Your task to perform on an android device: open app "Lyft - Rideshare, Bikes, Scooters & Transit" (install if not already installed) and enter user name: "deliberating@gmail.com" and password: "preyed" Image 0: 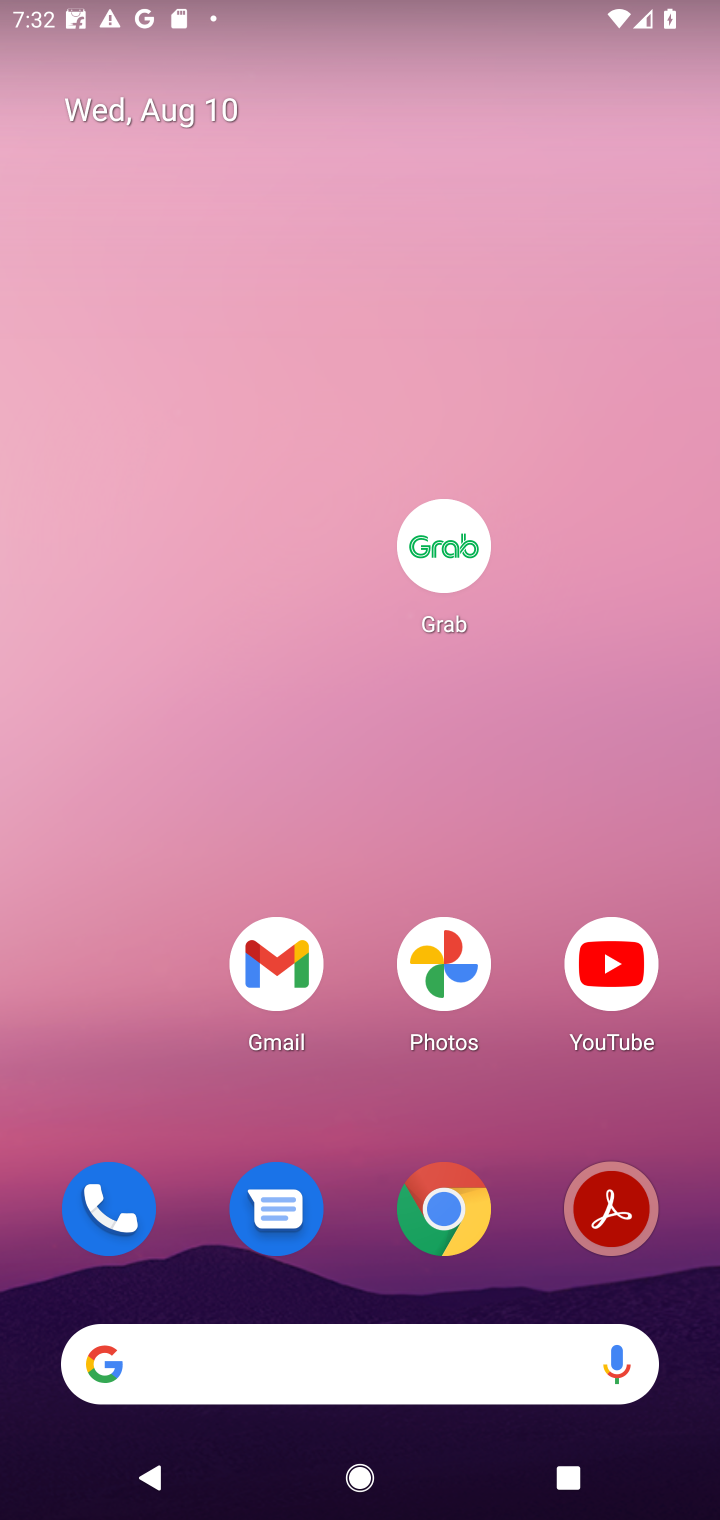
Step 0: drag from (368, 1291) to (365, 15)
Your task to perform on an android device: open app "Lyft - Rideshare, Bikes, Scooters & Transit" (install if not already installed) and enter user name: "deliberating@gmail.com" and password: "preyed" Image 1: 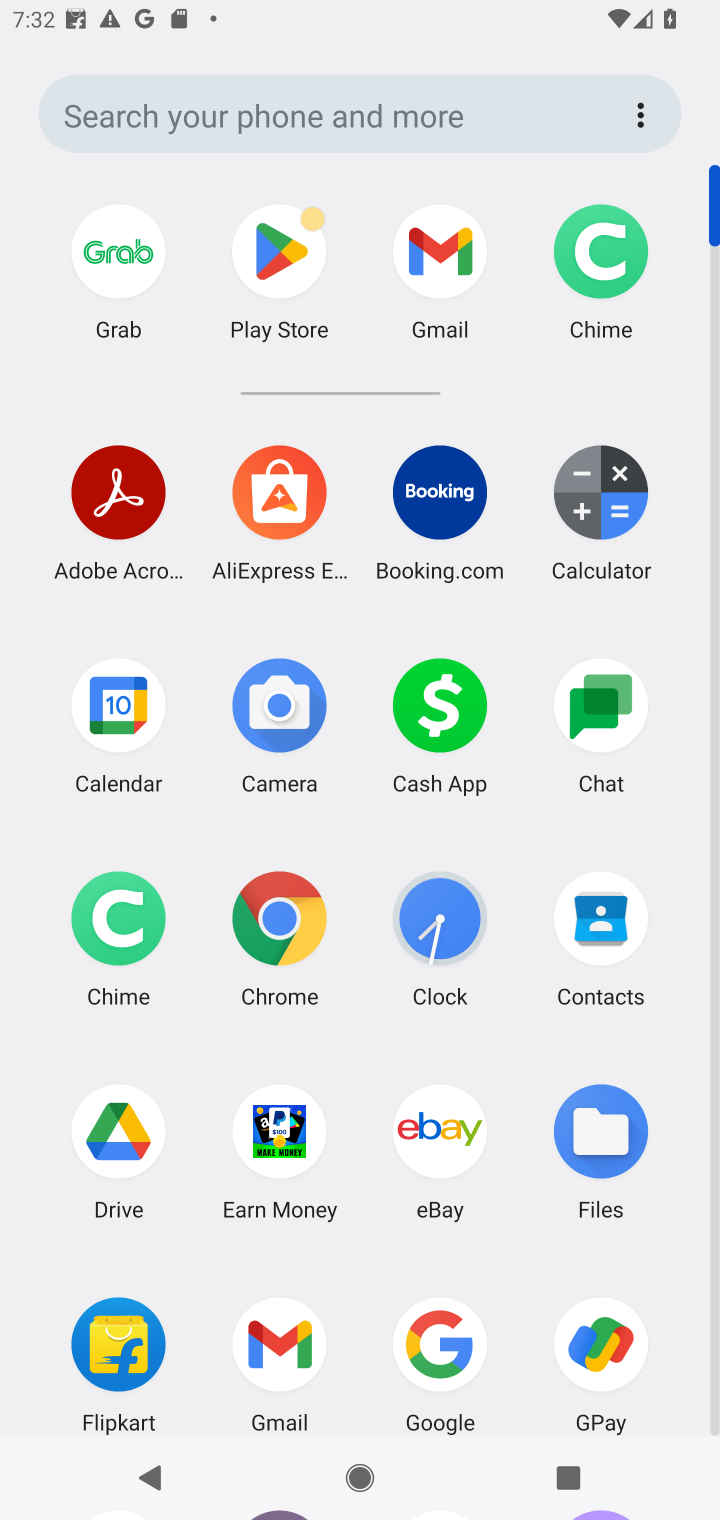
Step 1: click (278, 227)
Your task to perform on an android device: open app "Lyft - Rideshare, Bikes, Scooters & Transit" (install if not already installed) and enter user name: "deliberating@gmail.com" and password: "preyed" Image 2: 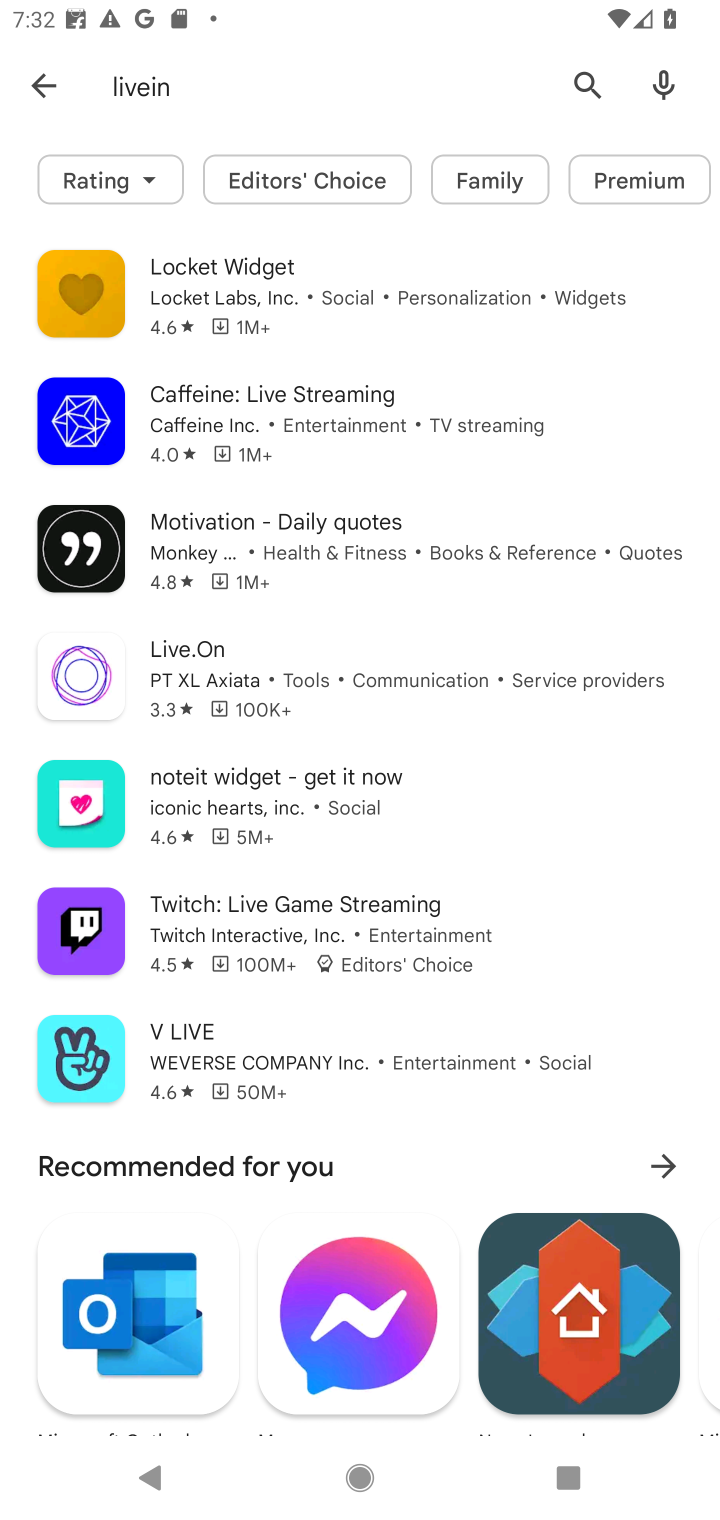
Step 2: click (587, 96)
Your task to perform on an android device: open app "Lyft - Rideshare, Bikes, Scooters & Transit" (install if not already installed) and enter user name: "deliberating@gmail.com" and password: "preyed" Image 3: 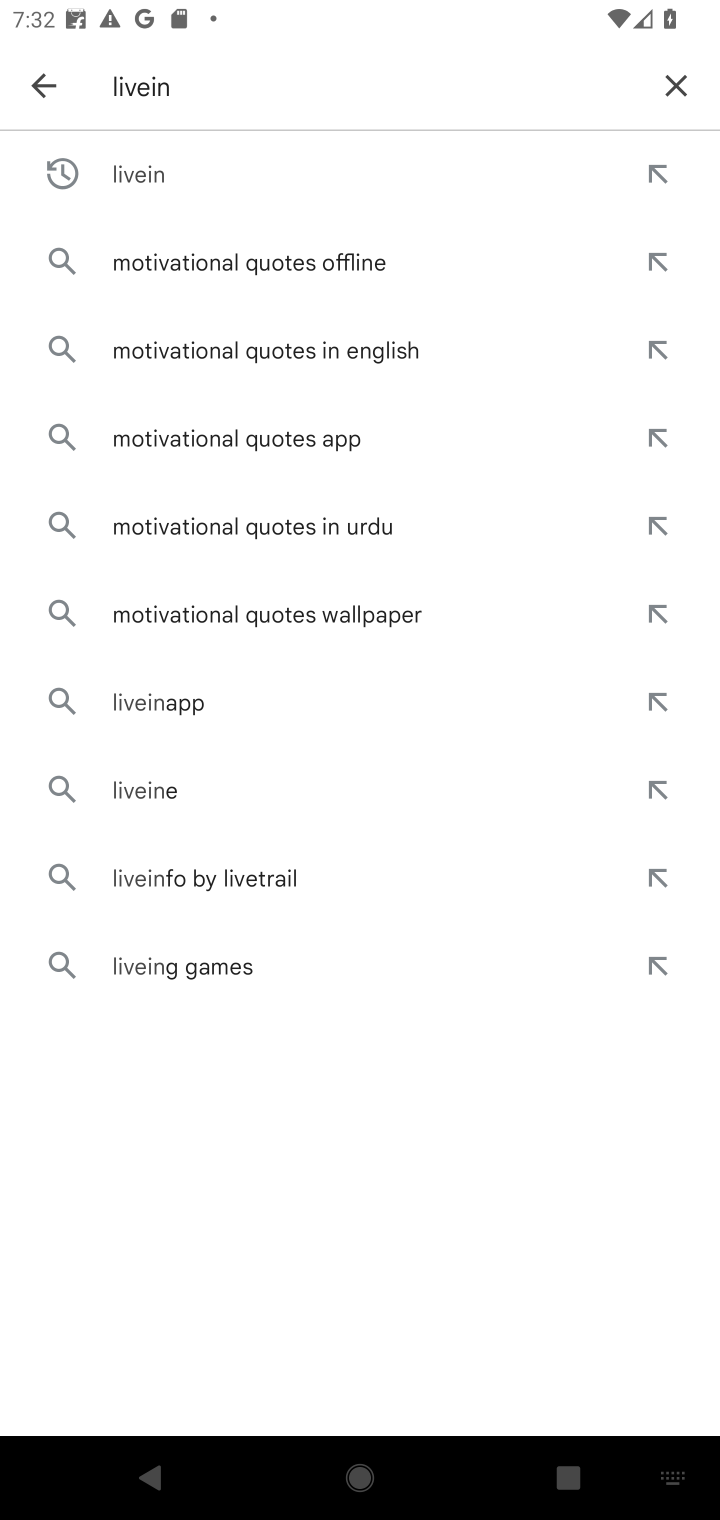
Step 3: click (676, 95)
Your task to perform on an android device: open app "Lyft - Rideshare, Bikes, Scooters & Transit" (install if not already installed) and enter user name: "deliberating@gmail.com" and password: "preyed" Image 4: 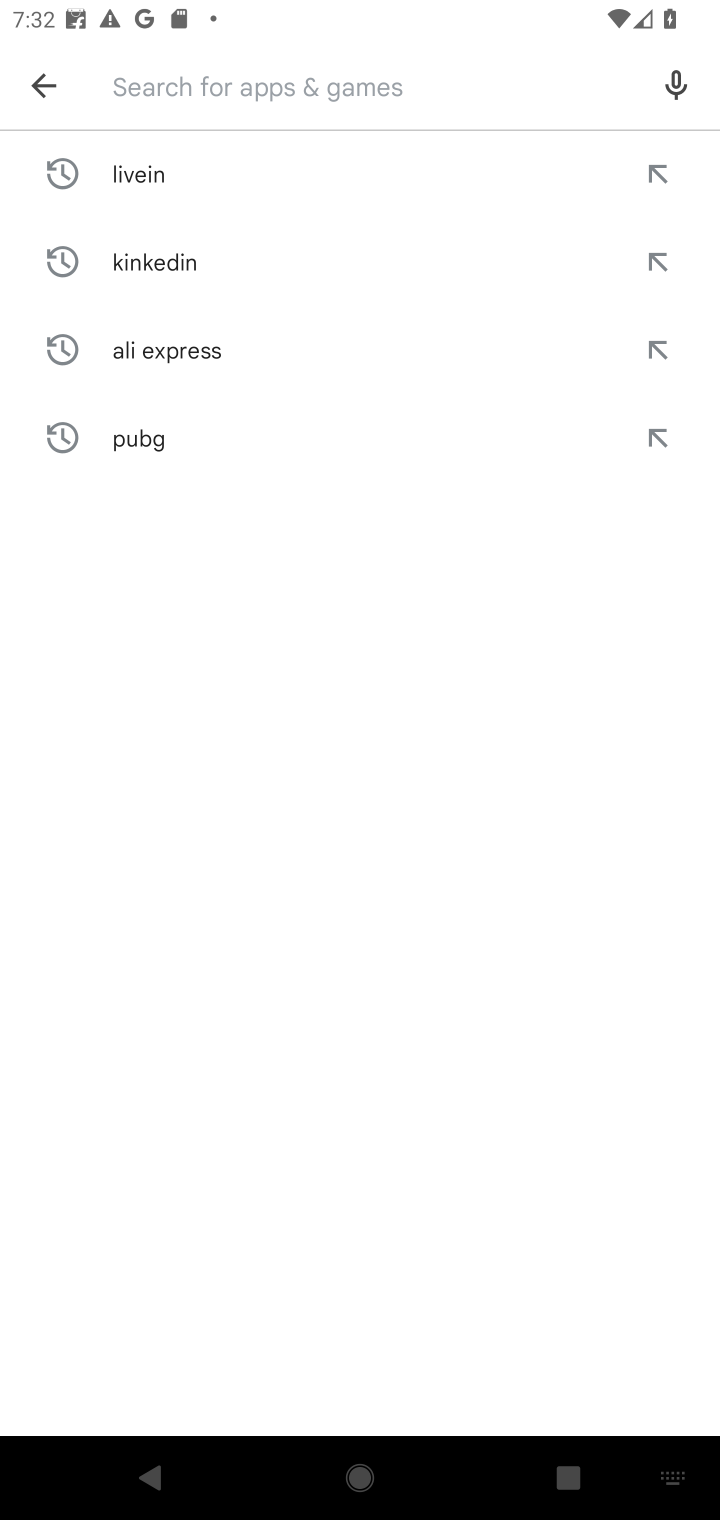
Step 4: type "lyst"
Your task to perform on an android device: open app "Lyft - Rideshare, Bikes, Scooters & Transit" (install if not already installed) and enter user name: "deliberating@gmail.com" and password: "preyed" Image 5: 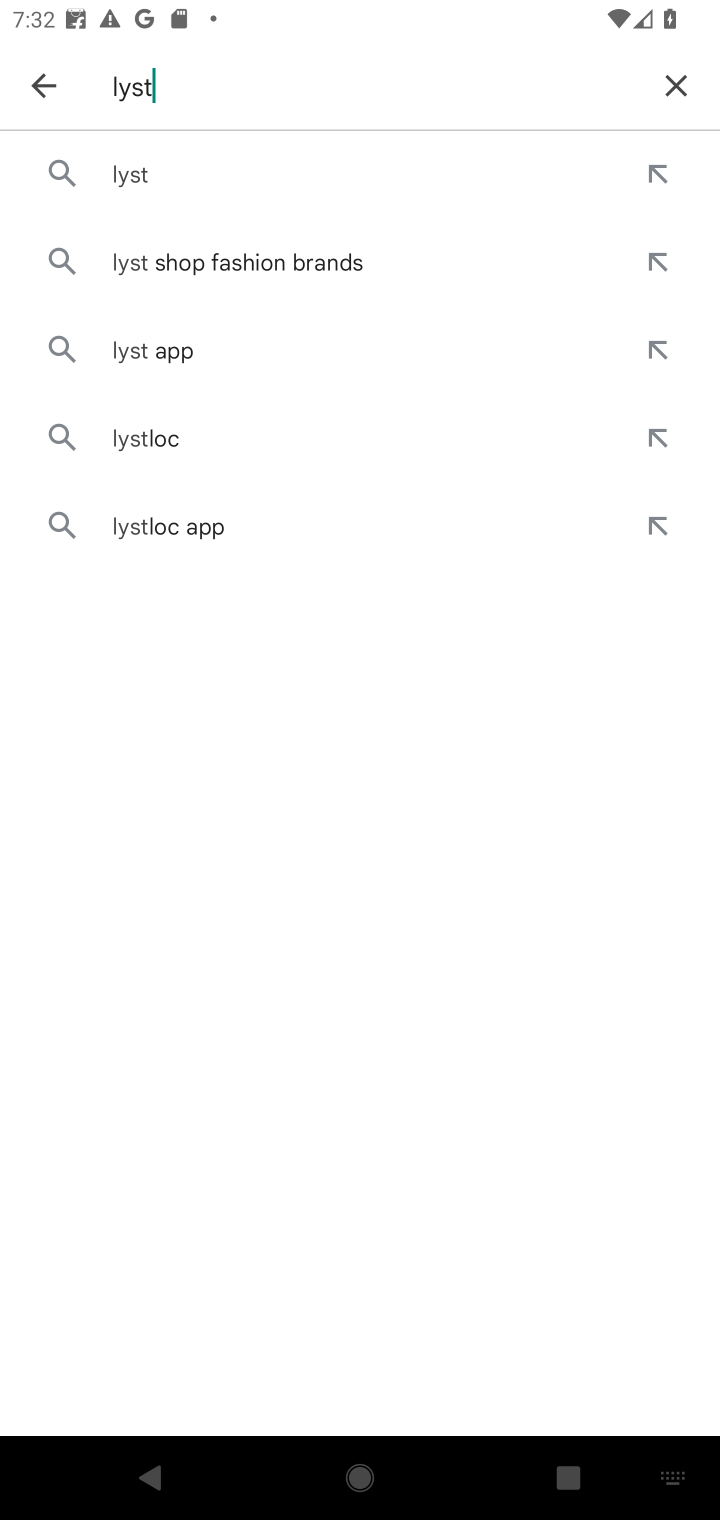
Step 5: click (310, 152)
Your task to perform on an android device: open app "Lyft - Rideshare, Bikes, Scooters & Transit" (install if not already installed) and enter user name: "deliberating@gmail.com" and password: "preyed" Image 6: 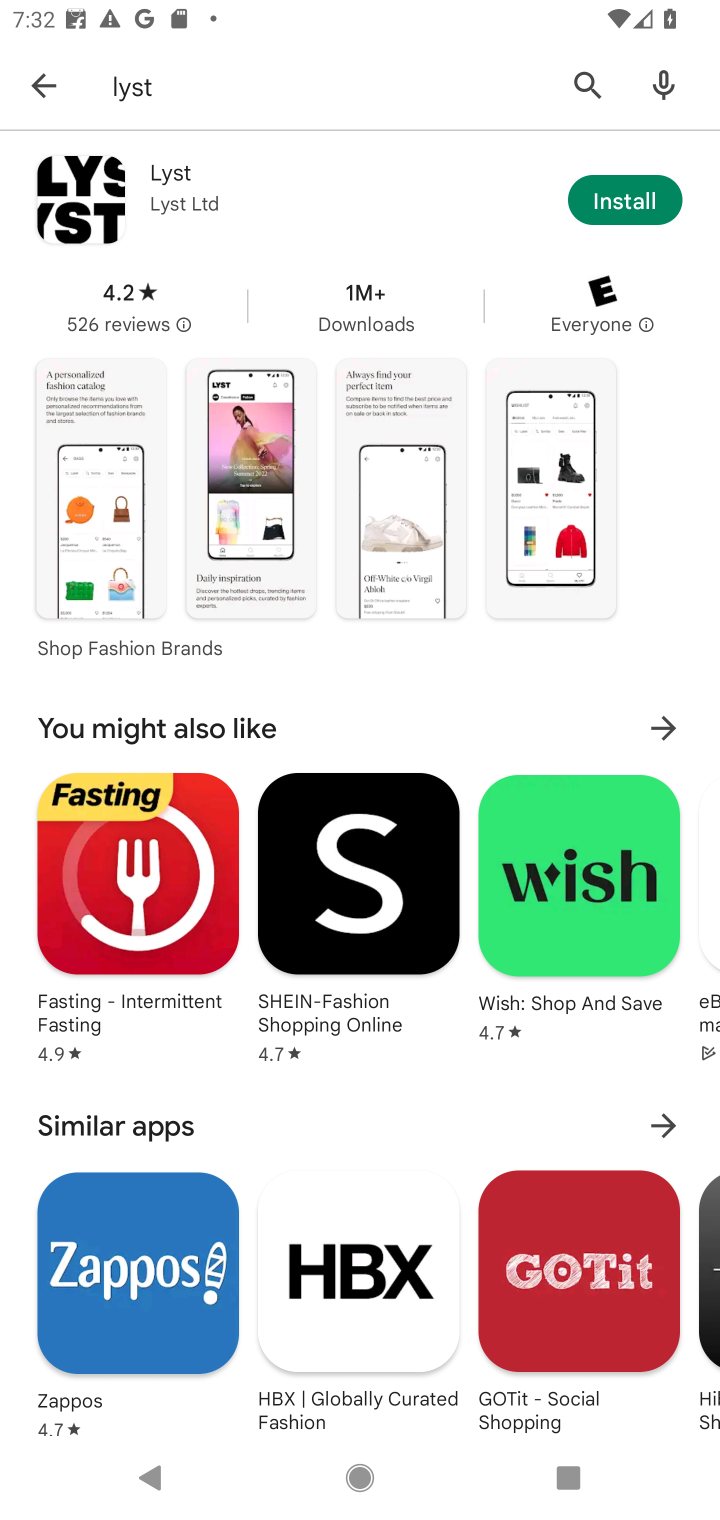
Step 6: click (640, 203)
Your task to perform on an android device: open app "Lyft - Rideshare, Bikes, Scooters & Transit" (install if not already installed) and enter user name: "deliberating@gmail.com" and password: "preyed" Image 7: 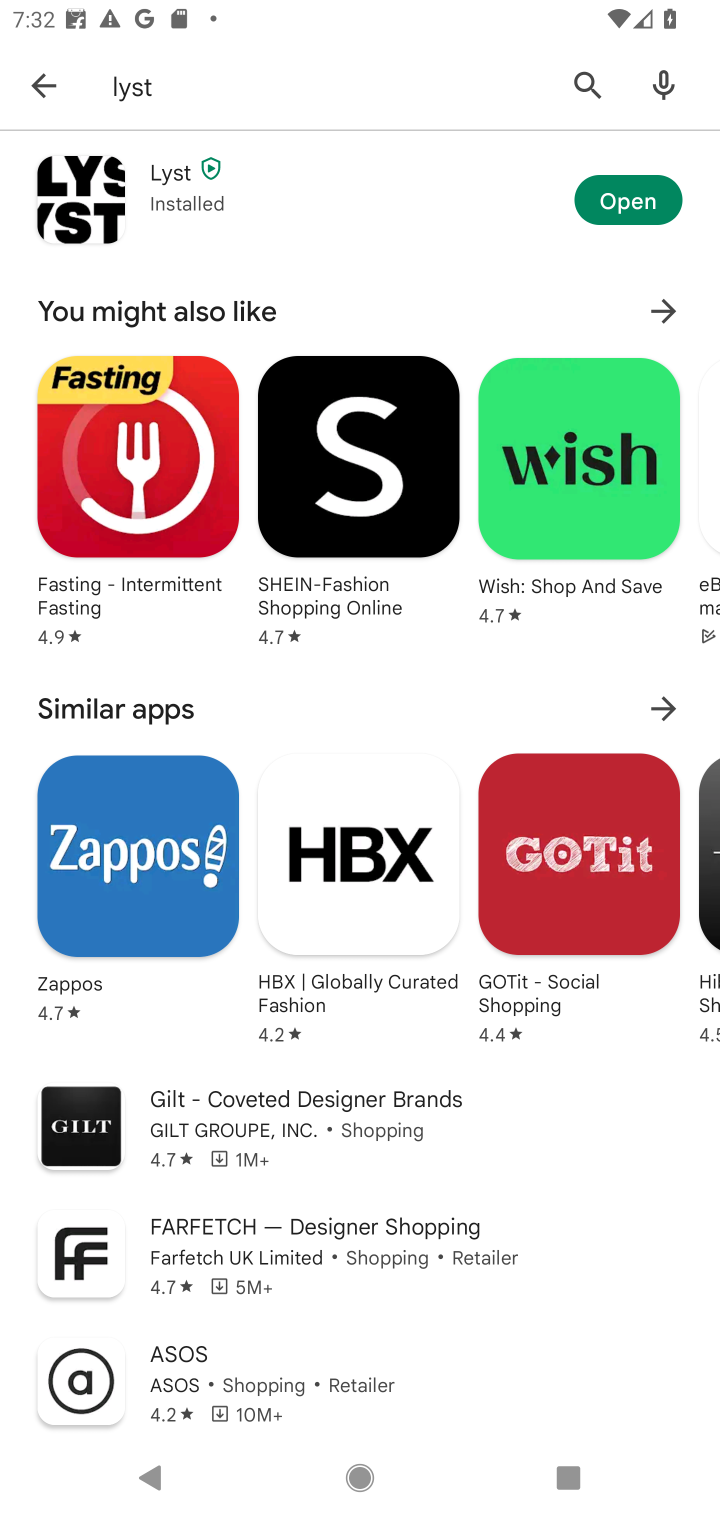
Step 7: click (654, 167)
Your task to perform on an android device: open app "Lyft - Rideshare, Bikes, Scooters & Transit" (install if not already installed) and enter user name: "deliberating@gmail.com" and password: "preyed" Image 8: 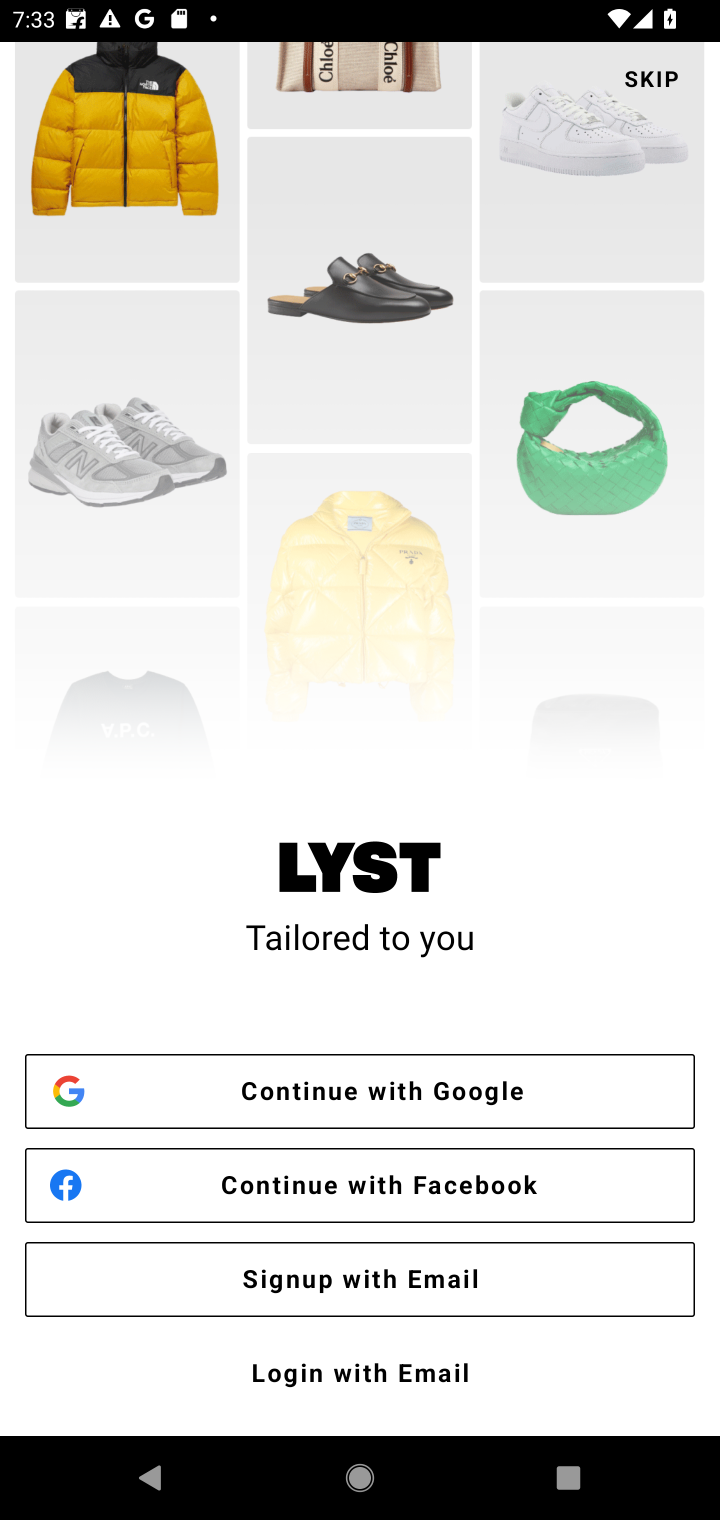
Step 8: click (363, 1367)
Your task to perform on an android device: open app "Lyft - Rideshare, Bikes, Scooters & Transit" (install if not already installed) and enter user name: "deliberating@gmail.com" and password: "preyed" Image 9: 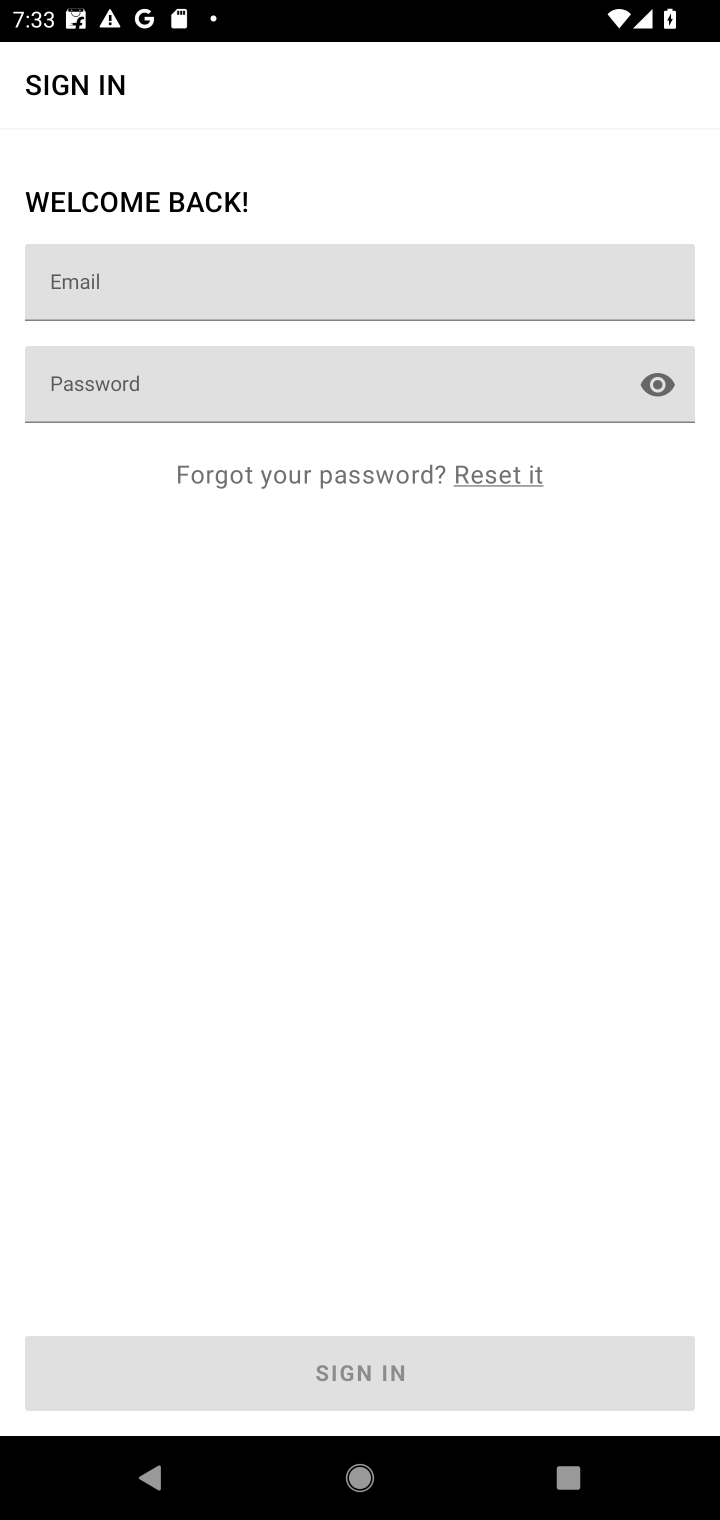
Step 9: click (355, 287)
Your task to perform on an android device: open app "Lyft - Rideshare, Bikes, Scooters & Transit" (install if not already installed) and enter user name: "deliberating@gmail.com" and password: "preyed" Image 10: 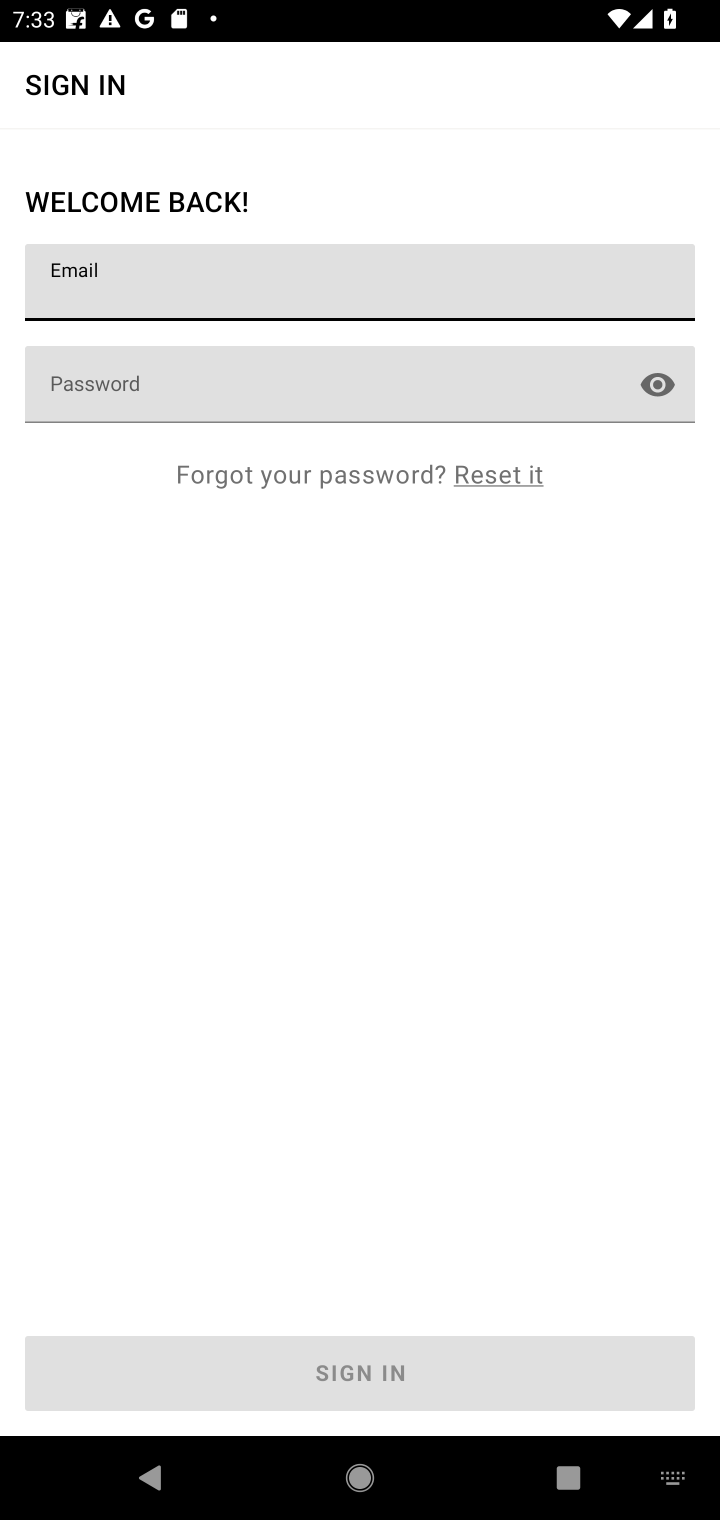
Step 10: type "deliberating@gmail.com"
Your task to perform on an android device: open app "Lyft - Rideshare, Bikes, Scooters & Transit" (install if not already installed) and enter user name: "deliberating@gmail.com" and password: "preyed" Image 11: 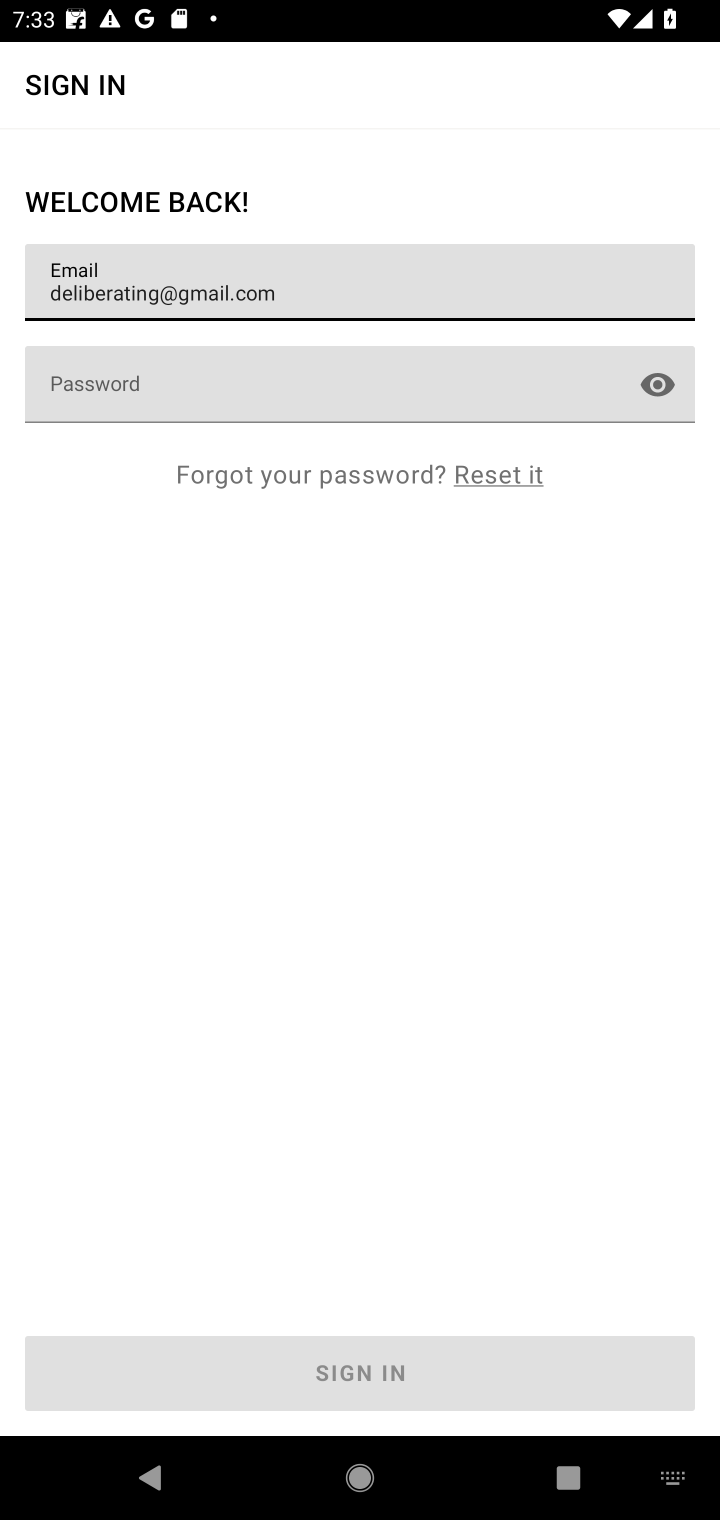
Step 11: click (261, 383)
Your task to perform on an android device: open app "Lyft - Rideshare, Bikes, Scooters & Transit" (install if not already installed) and enter user name: "deliberating@gmail.com" and password: "preyed" Image 12: 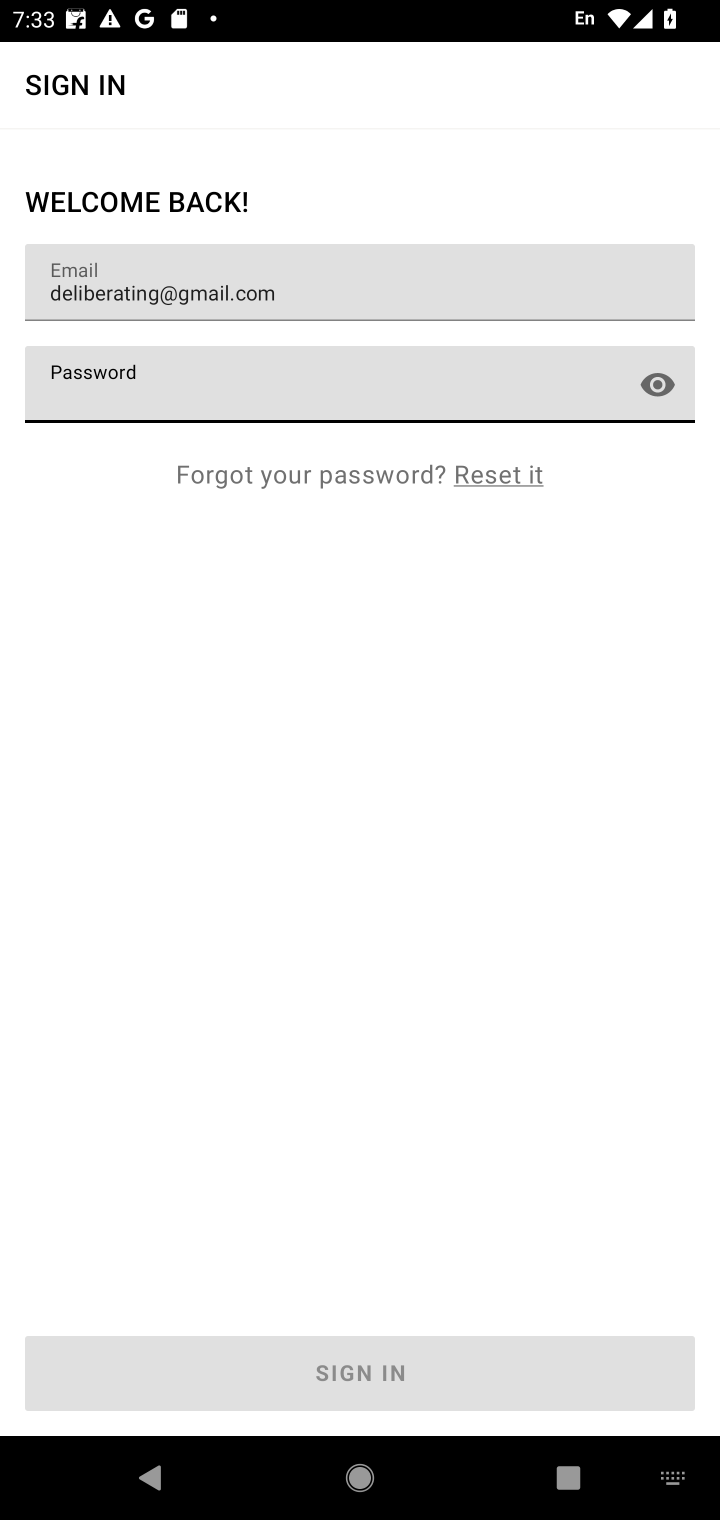
Step 12: type "preyed"
Your task to perform on an android device: open app "Lyft - Rideshare, Bikes, Scooters & Transit" (install if not already installed) and enter user name: "deliberating@gmail.com" and password: "preyed" Image 13: 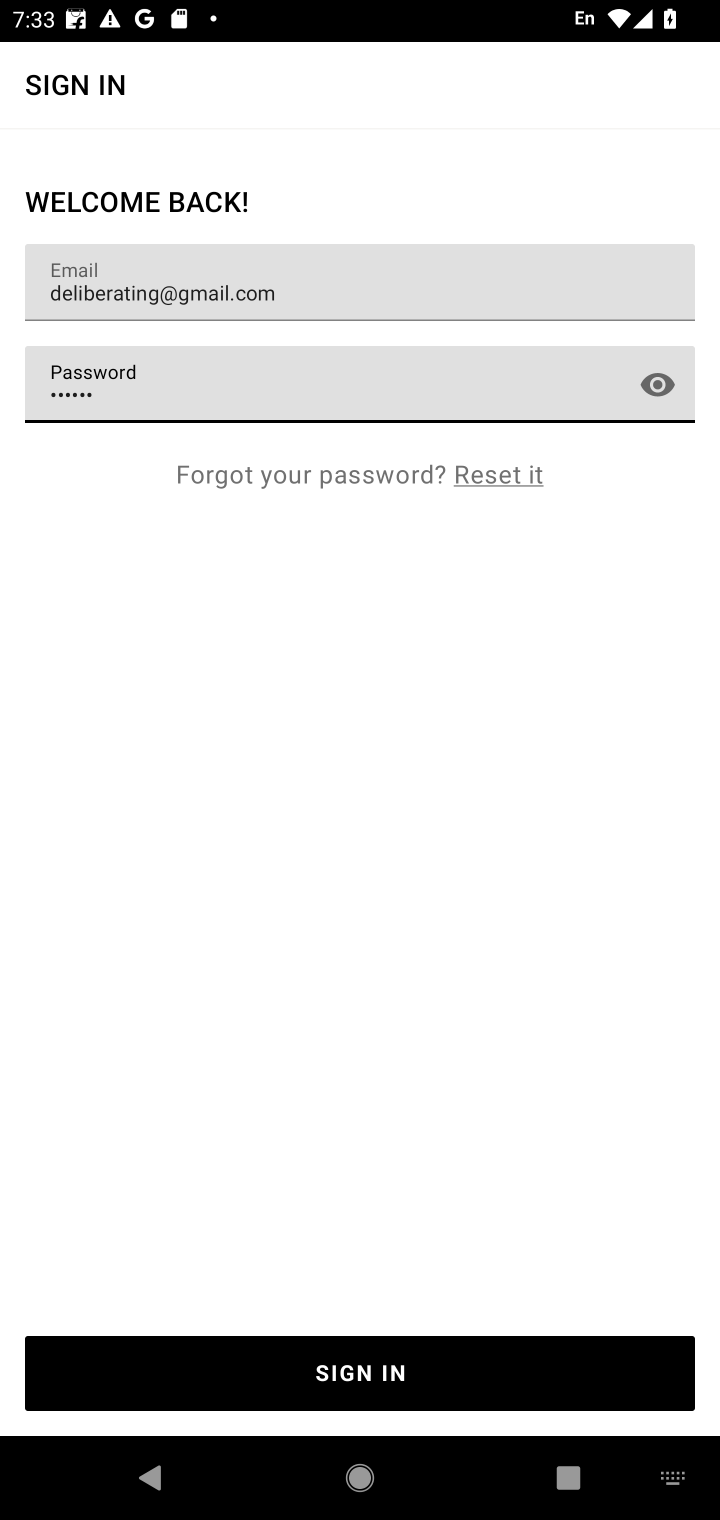
Step 13: click (358, 1354)
Your task to perform on an android device: open app "Lyft - Rideshare, Bikes, Scooters & Transit" (install if not already installed) and enter user name: "deliberating@gmail.com" and password: "preyed" Image 14: 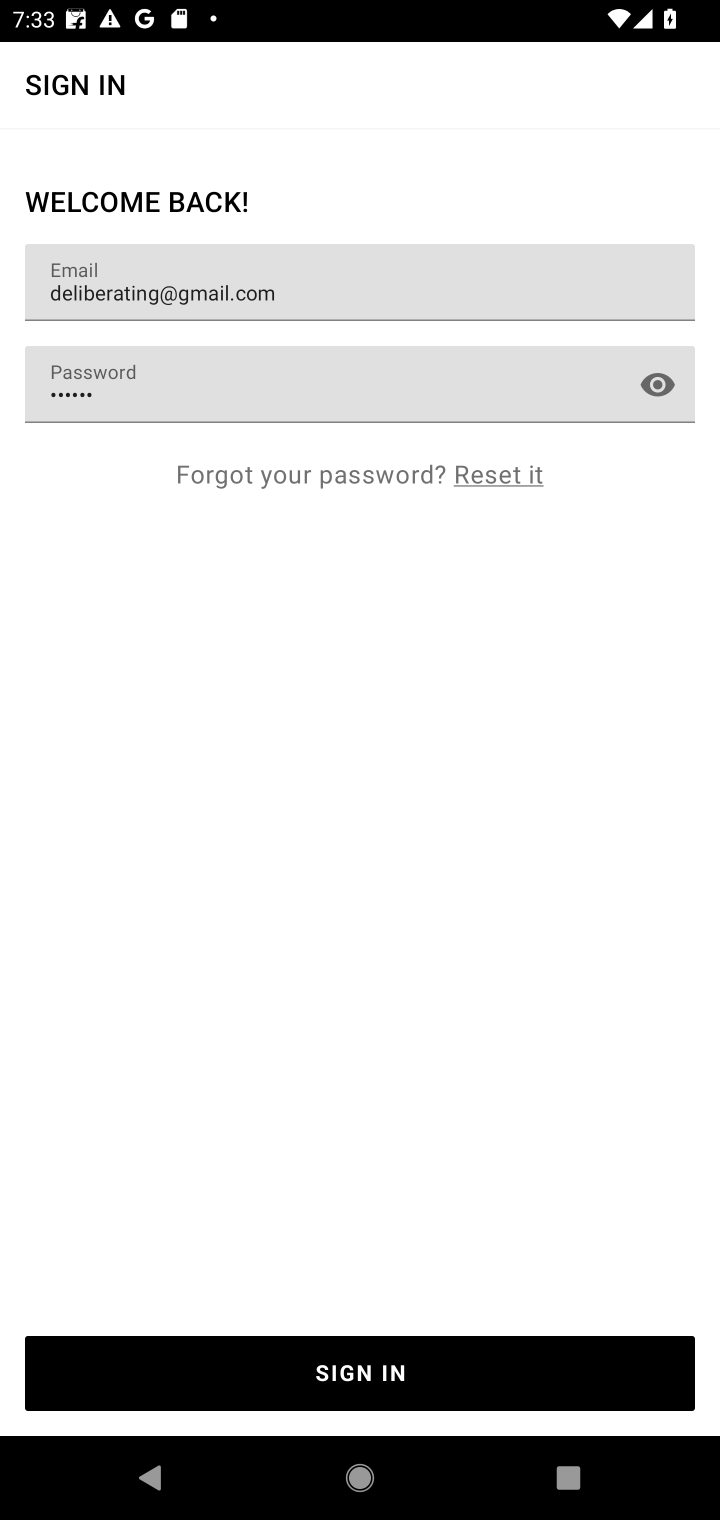
Step 14: click (400, 1357)
Your task to perform on an android device: open app "Lyft - Rideshare, Bikes, Scooters & Transit" (install if not already installed) and enter user name: "deliberating@gmail.com" and password: "preyed" Image 15: 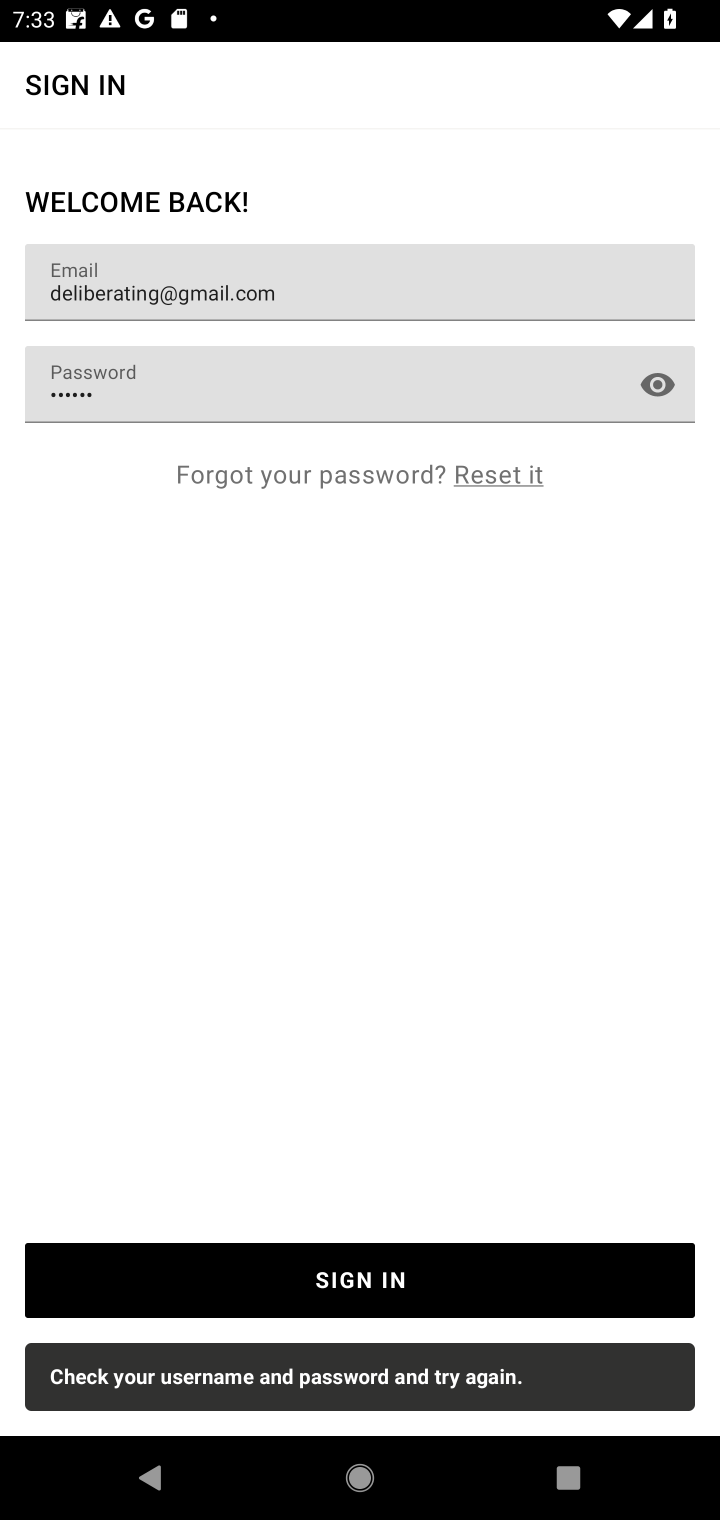
Step 15: task complete